Your task to perform on an android device: see tabs open on other devices in the chrome app Image 0: 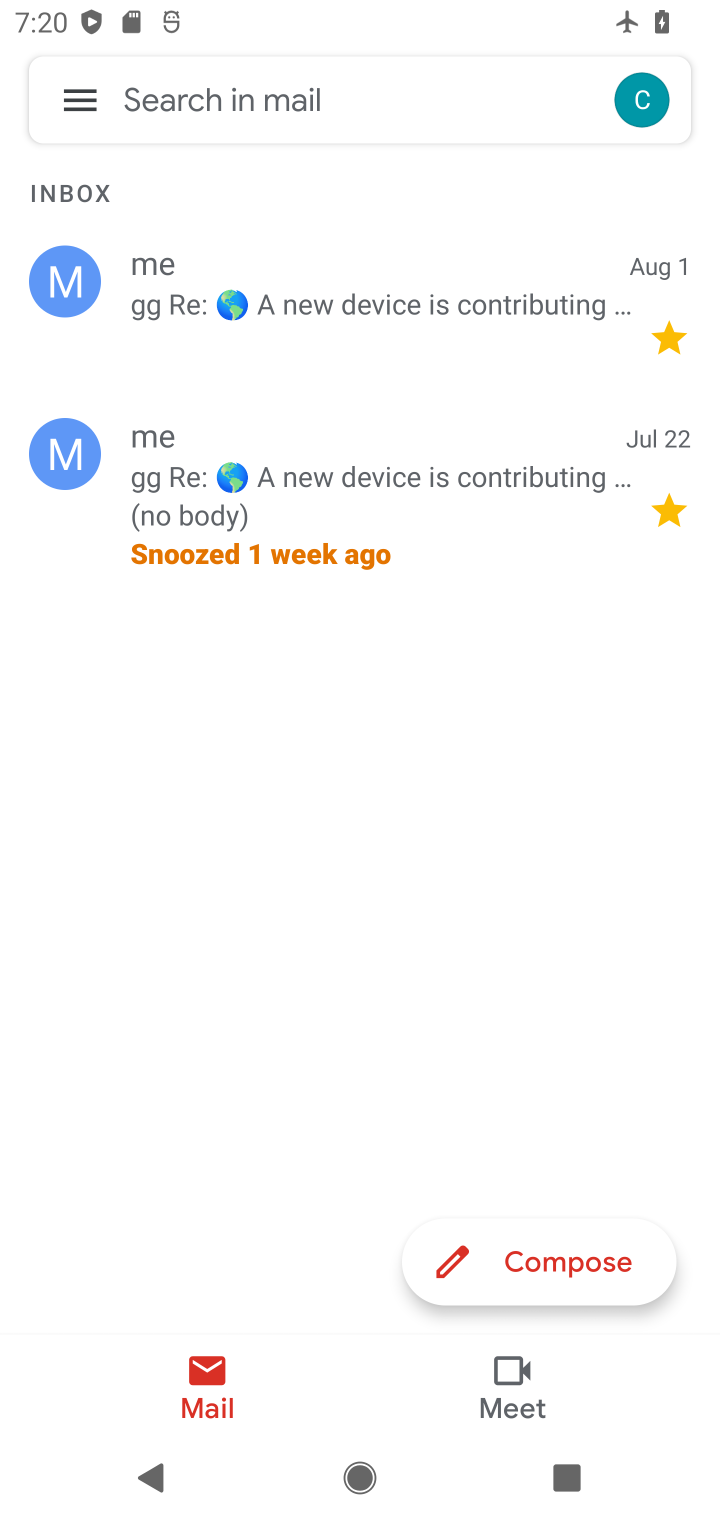
Step 0: press back button
Your task to perform on an android device: see tabs open on other devices in the chrome app Image 1: 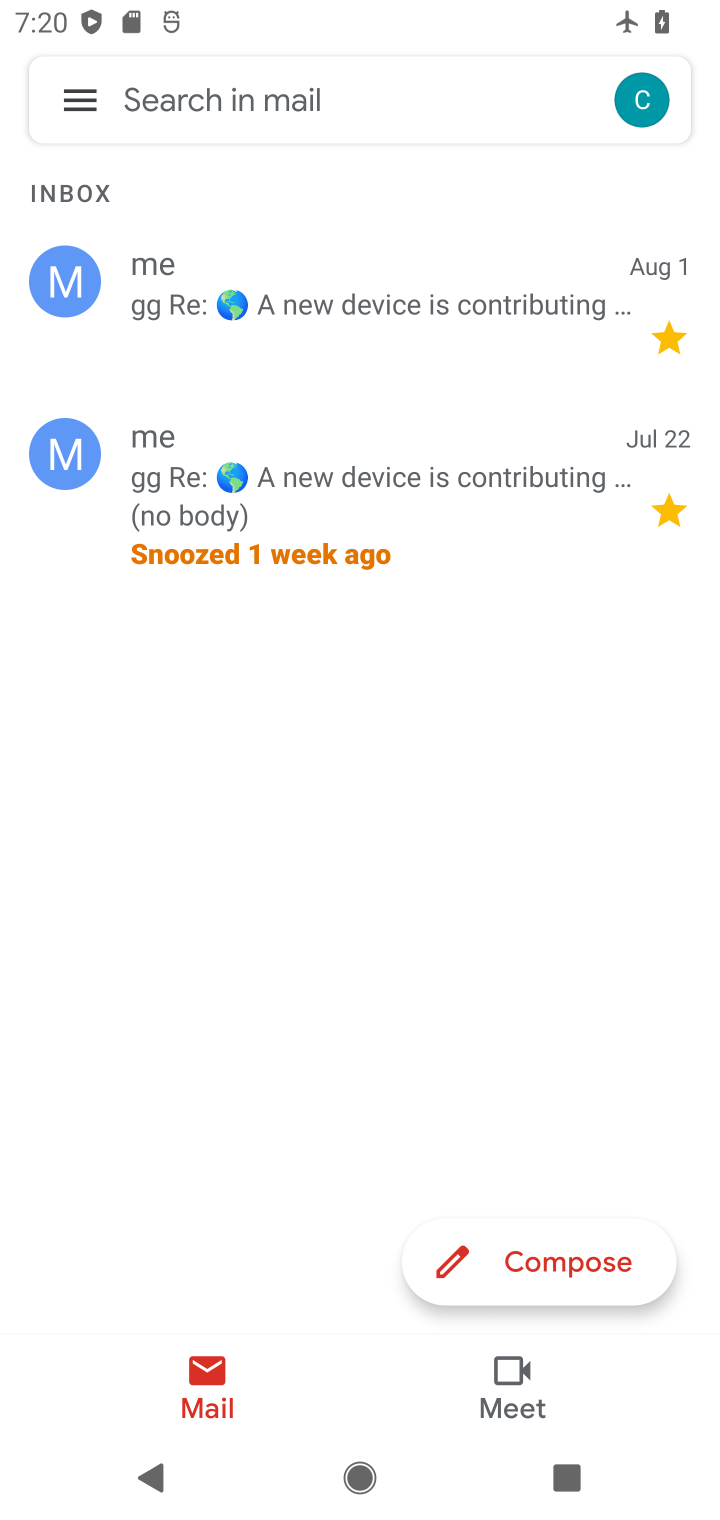
Step 1: press home button
Your task to perform on an android device: see tabs open on other devices in the chrome app Image 2: 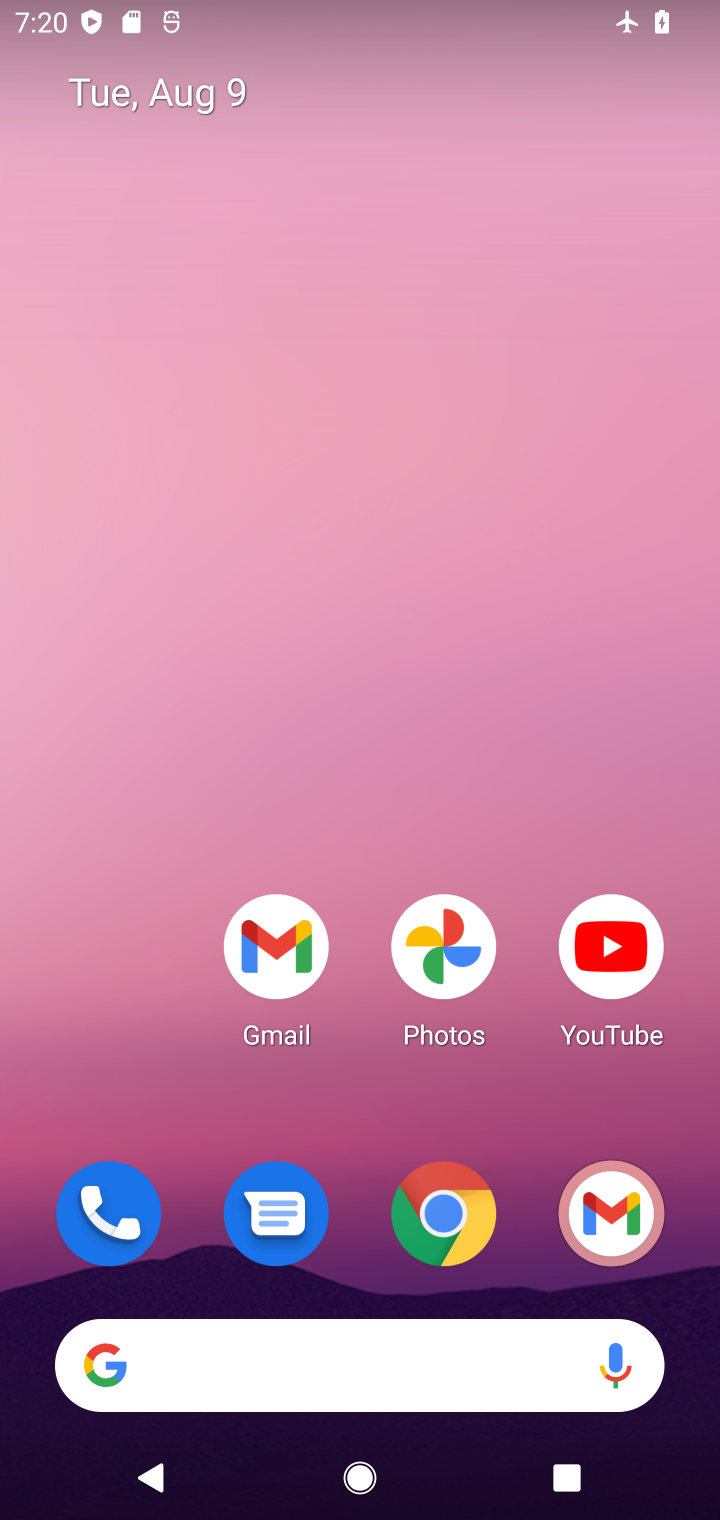
Step 2: click (432, 1211)
Your task to perform on an android device: see tabs open on other devices in the chrome app Image 3: 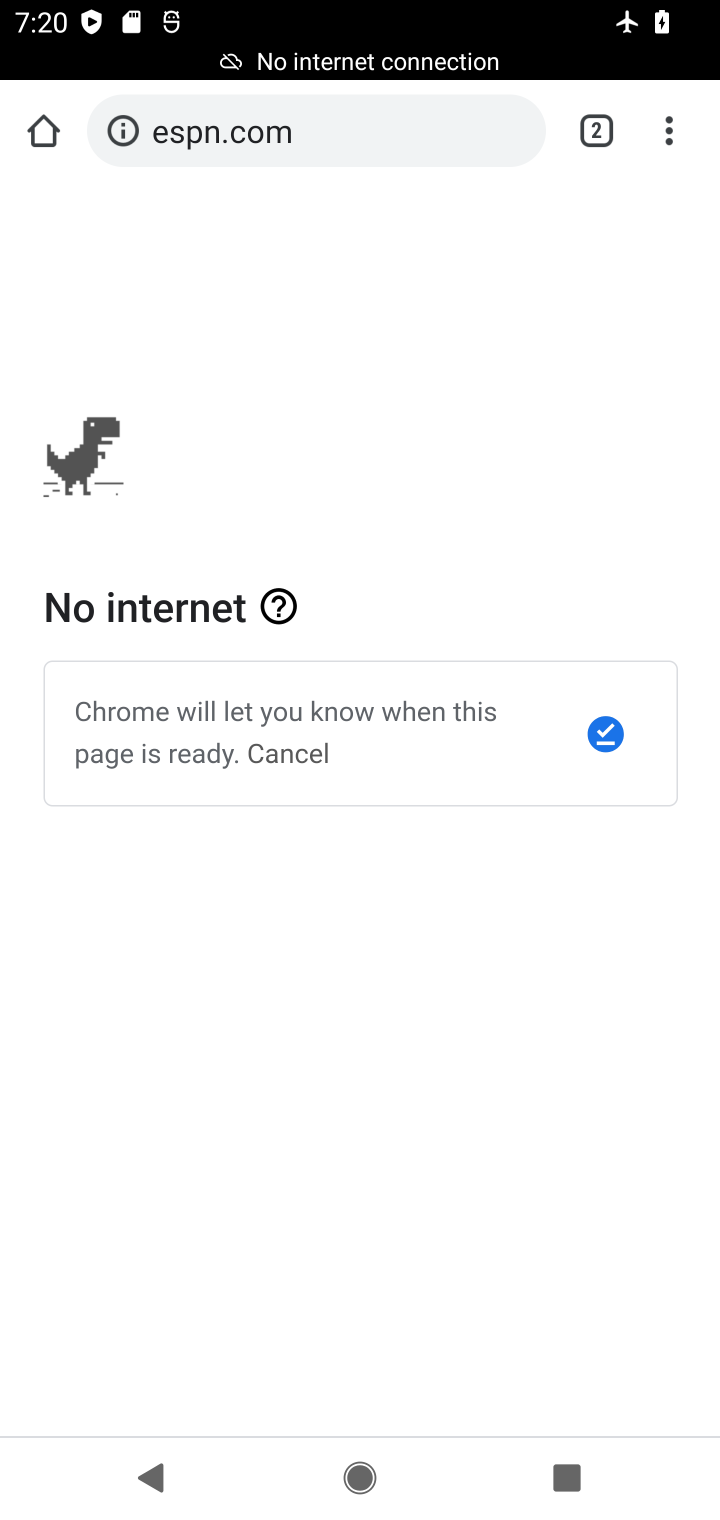
Step 3: click (593, 141)
Your task to perform on an android device: see tabs open on other devices in the chrome app Image 4: 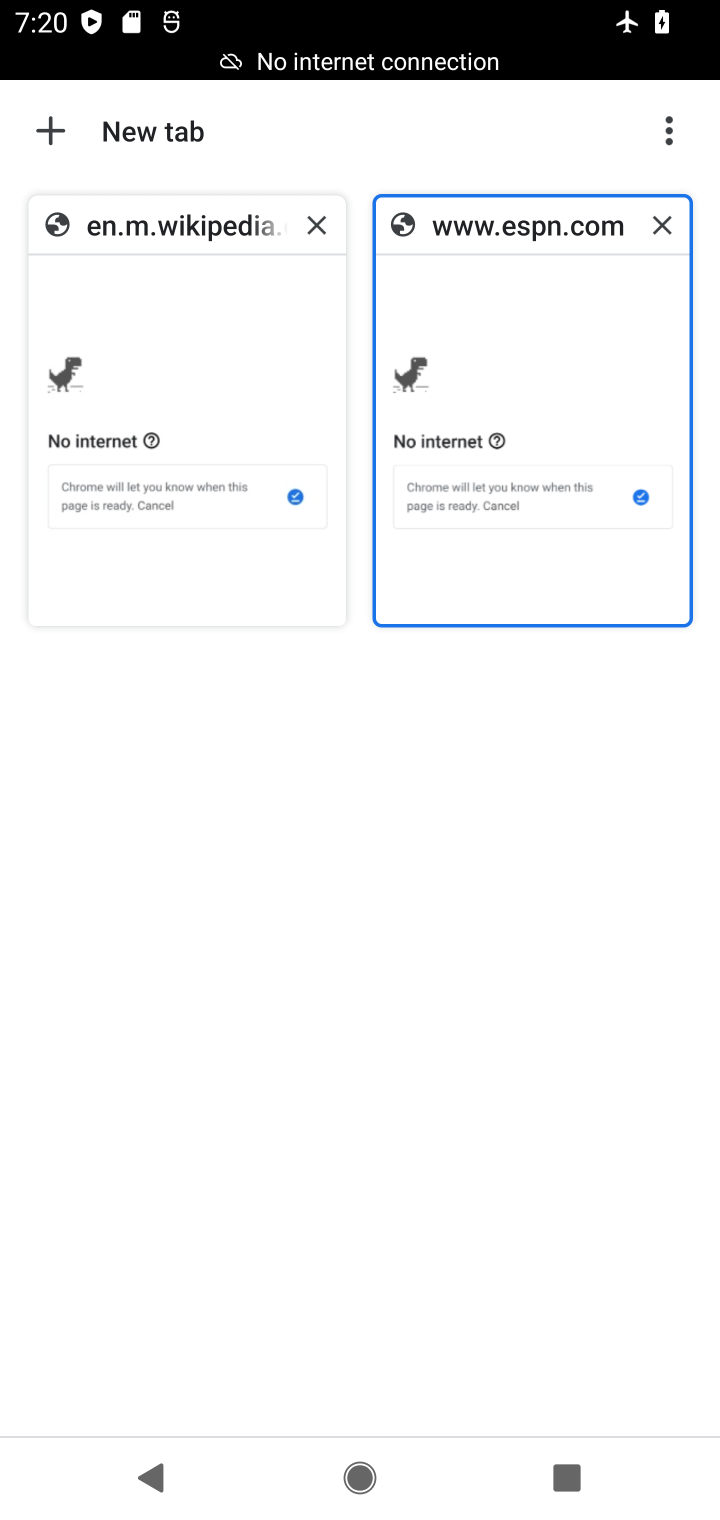
Step 4: task complete